Your task to perform on an android device: See recent photos Image 0: 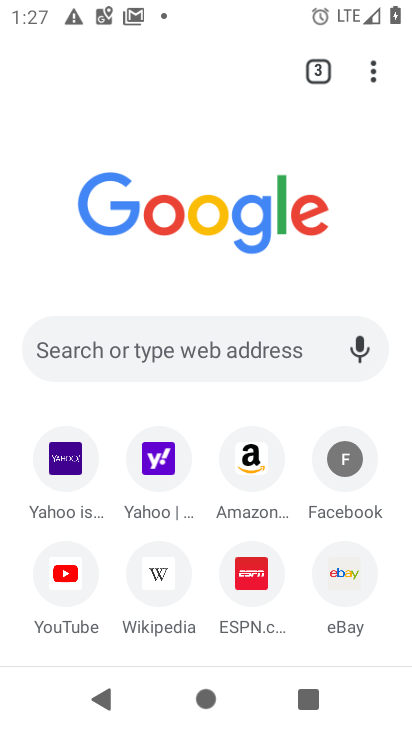
Step 0: press home button
Your task to perform on an android device: See recent photos Image 1: 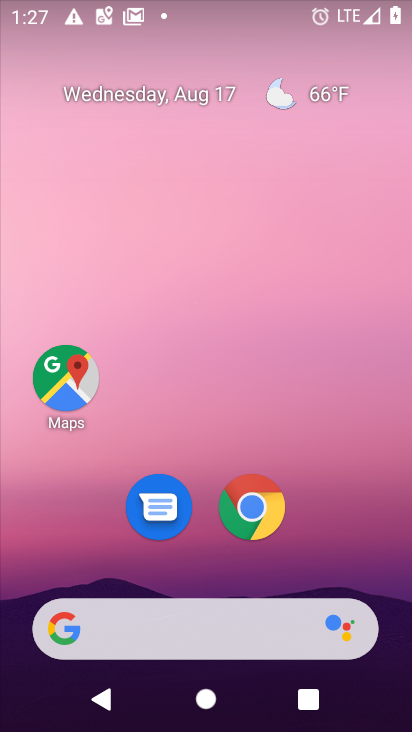
Step 1: drag from (209, 597) to (200, 140)
Your task to perform on an android device: See recent photos Image 2: 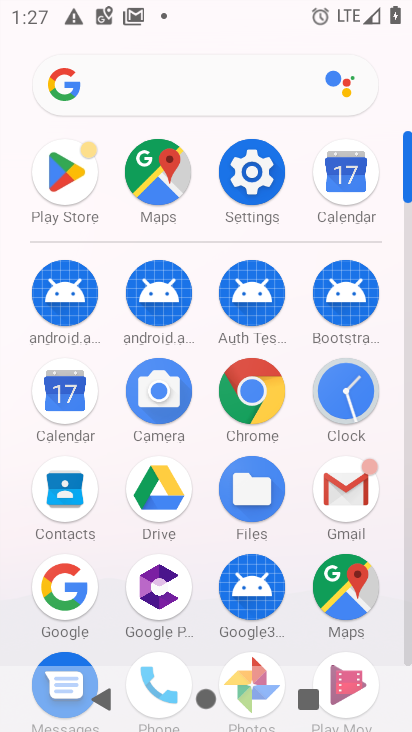
Step 2: click (251, 657)
Your task to perform on an android device: See recent photos Image 3: 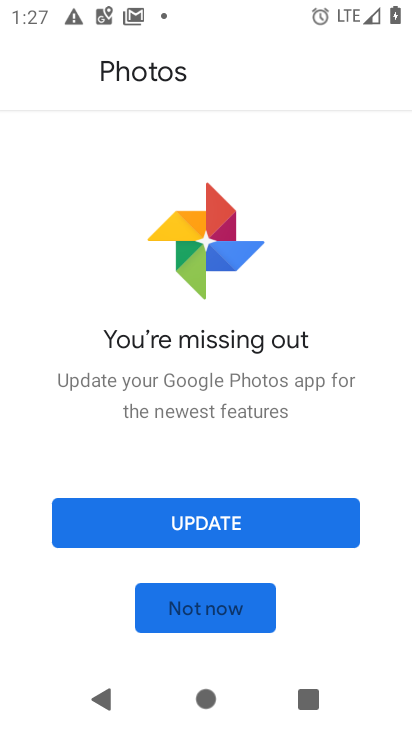
Step 3: click (214, 616)
Your task to perform on an android device: See recent photos Image 4: 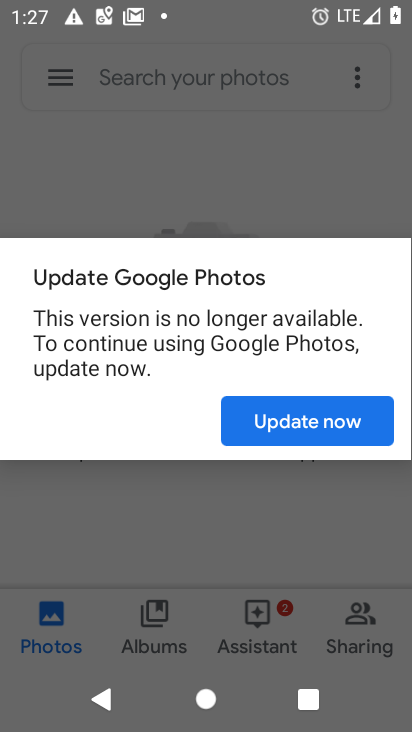
Step 4: task complete